Your task to perform on an android device: turn off notifications in google photos Image 0: 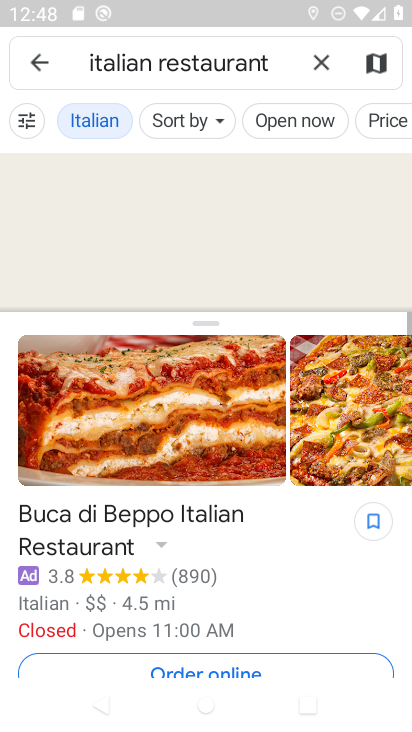
Step 0: press home button
Your task to perform on an android device: turn off notifications in google photos Image 1: 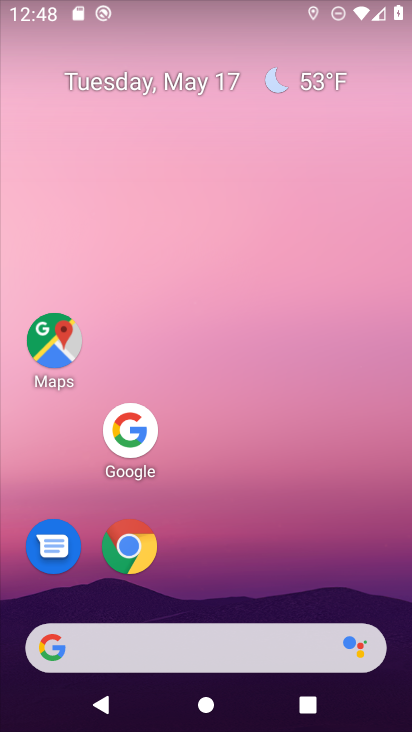
Step 1: drag from (236, 543) to (283, 42)
Your task to perform on an android device: turn off notifications in google photos Image 2: 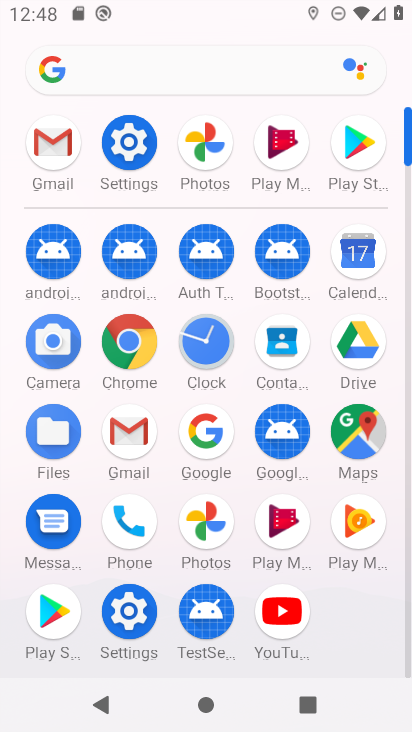
Step 2: click (200, 515)
Your task to perform on an android device: turn off notifications in google photos Image 3: 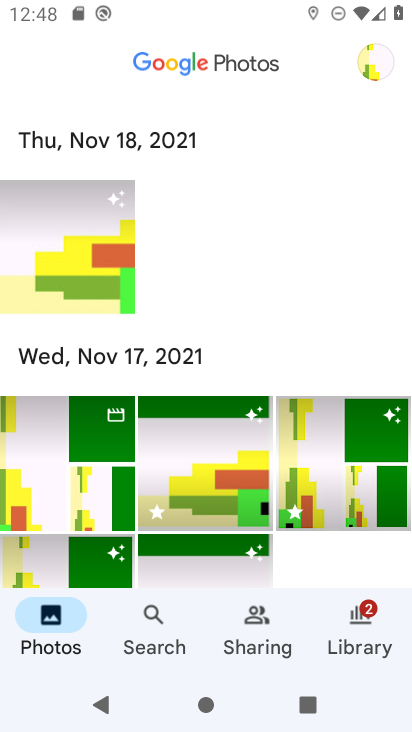
Step 3: click (368, 68)
Your task to perform on an android device: turn off notifications in google photos Image 4: 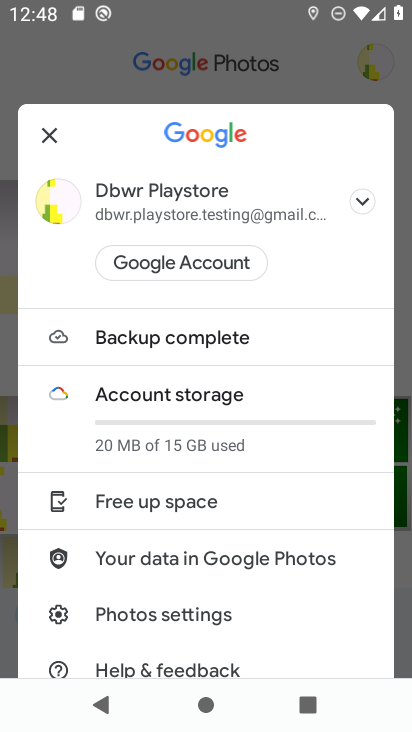
Step 4: drag from (215, 609) to (247, 304)
Your task to perform on an android device: turn off notifications in google photos Image 5: 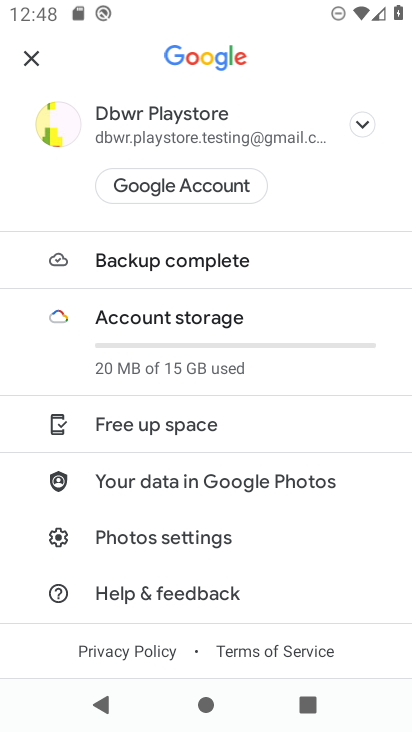
Step 5: click (182, 539)
Your task to perform on an android device: turn off notifications in google photos Image 6: 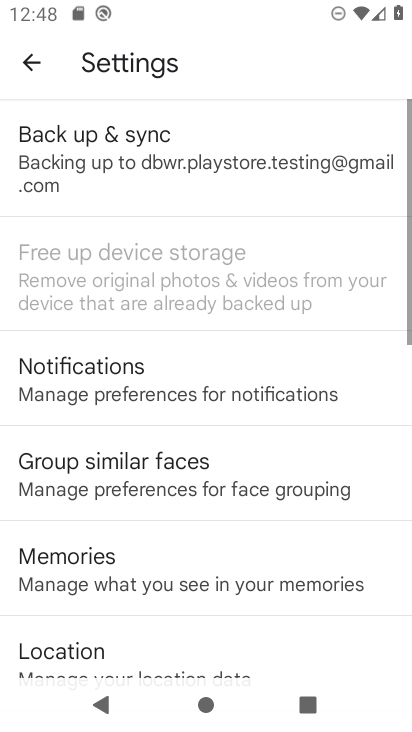
Step 6: click (156, 352)
Your task to perform on an android device: turn off notifications in google photos Image 7: 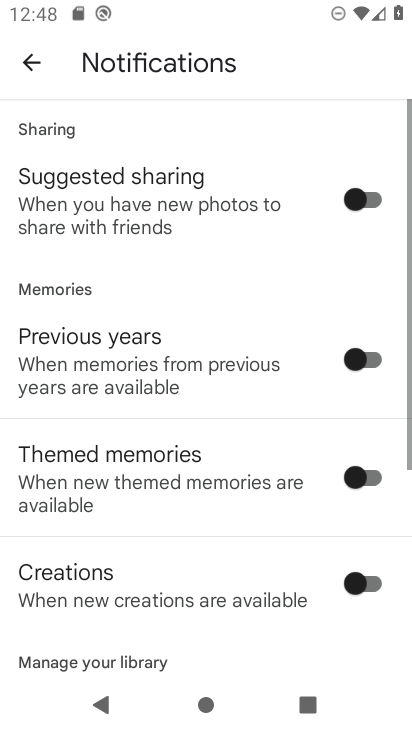
Step 7: drag from (210, 527) to (227, 67)
Your task to perform on an android device: turn off notifications in google photos Image 8: 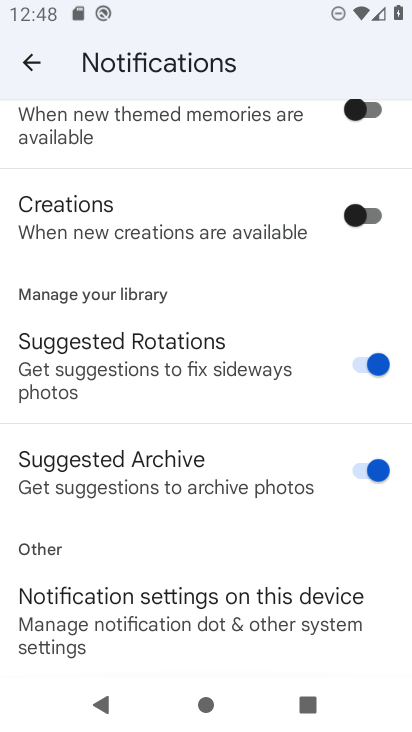
Step 8: click (190, 598)
Your task to perform on an android device: turn off notifications in google photos Image 9: 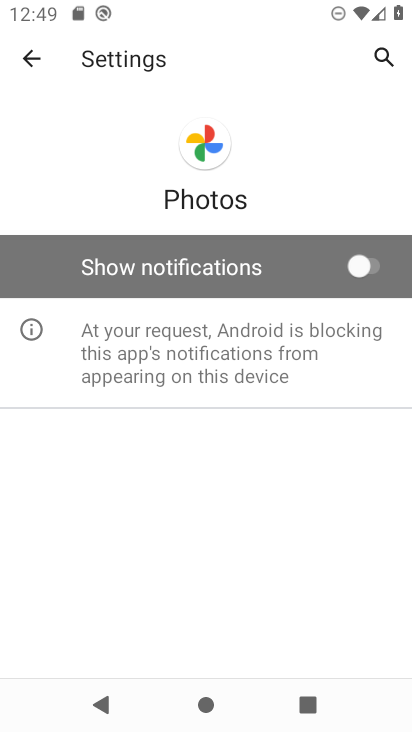
Step 9: task complete